Your task to perform on an android device: Open the map Image 0: 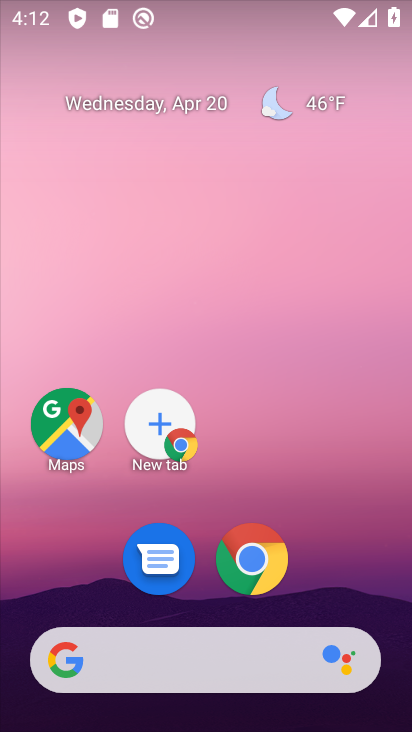
Step 0: drag from (313, 582) to (307, 98)
Your task to perform on an android device: Open the map Image 1: 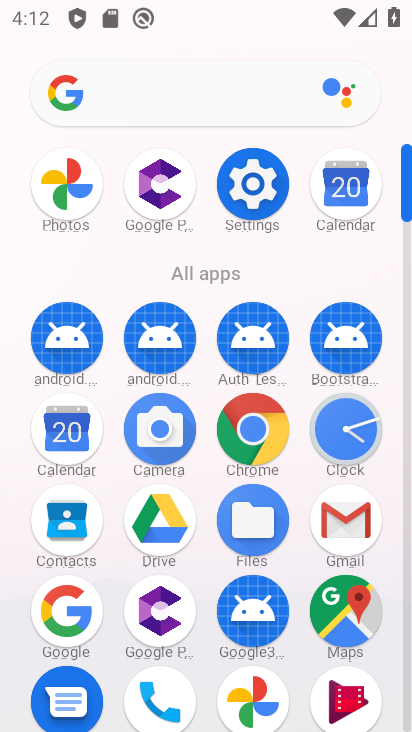
Step 1: click (256, 198)
Your task to perform on an android device: Open the map Image 2: 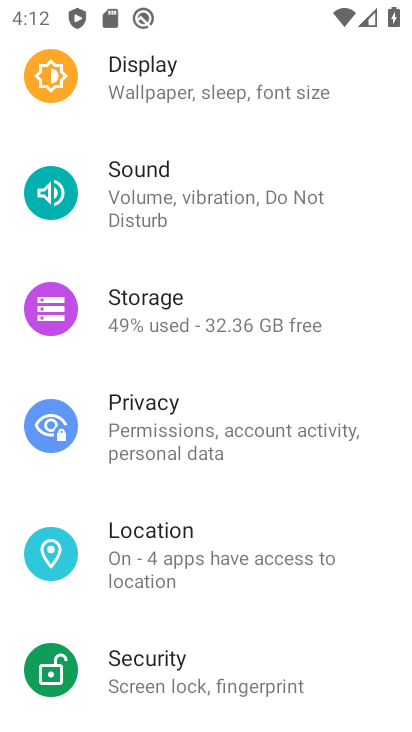
Step 2: press home button
Your task to perform on an android device: Open the map Image 3: 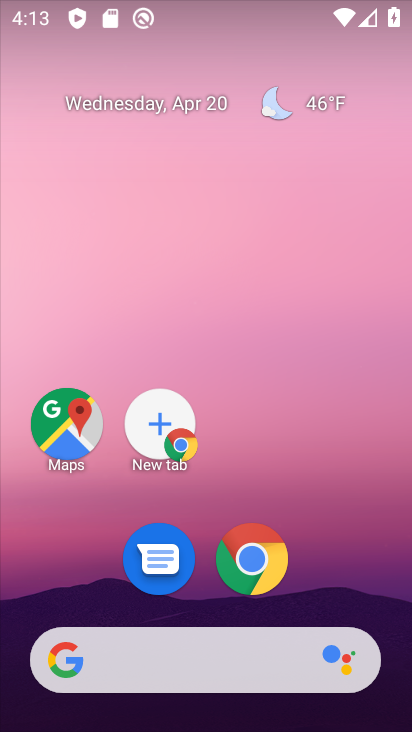
Step 3: drag from (317, 548) to (318, 101)
Your task to perform on an android device: Open the map Image 4: 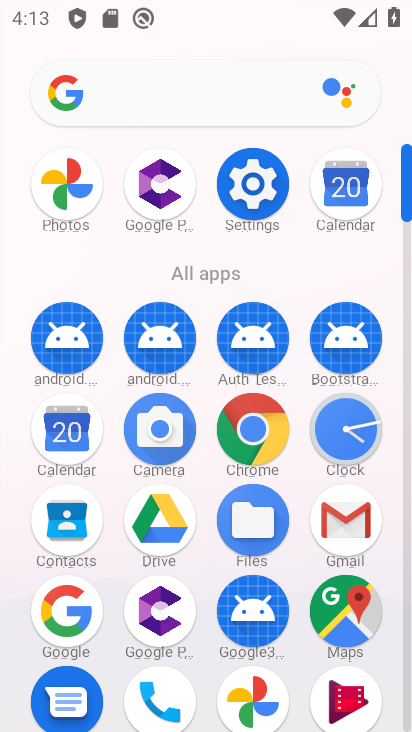
Step 4: click (249, 201)
Your task to perform on an android device: Open the map Image 5: 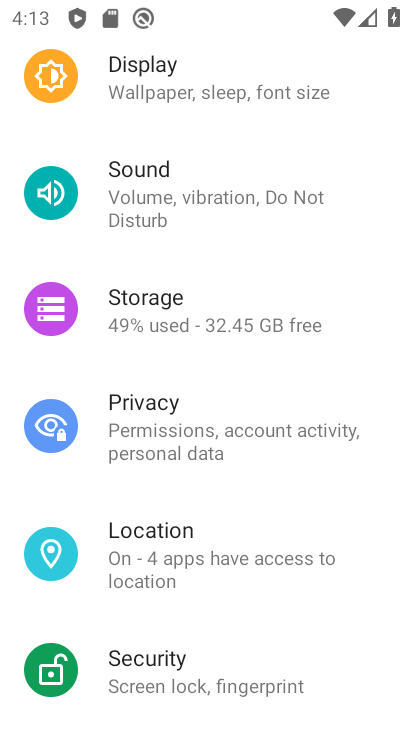
Step 5: press home button
Your task to perform on an android device: Open the map Image 6: 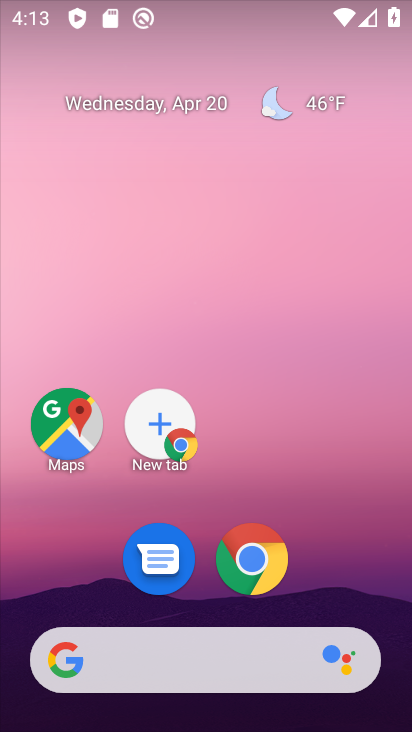
Step 6: click (62, 424)
Your task to perform on an android device: Open the map Image 7: 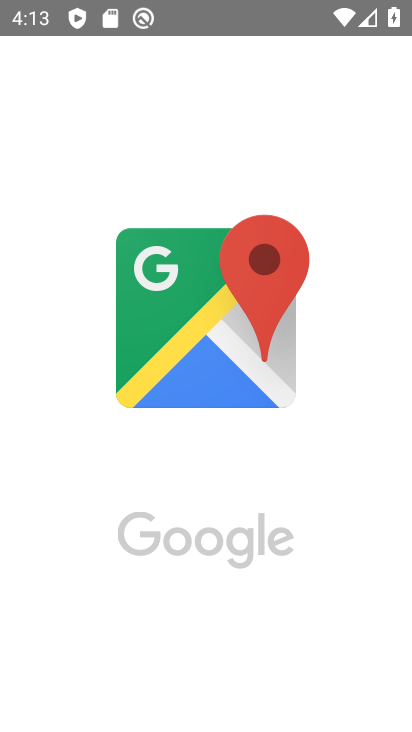
Step 7: task complete